Your task to perform on an android device: toggle data saver in the chrome app Image 0: 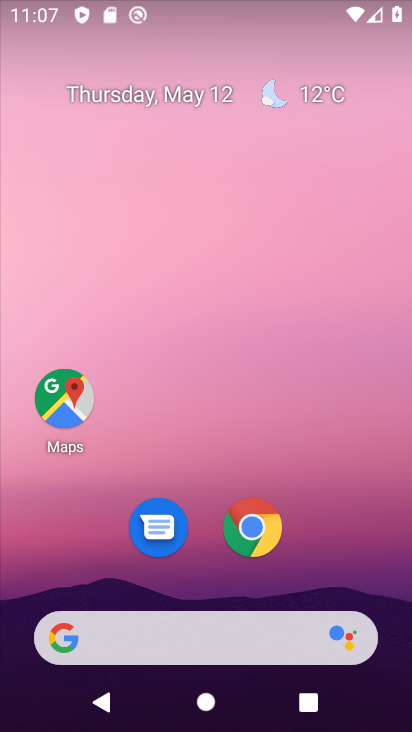
Step 0: press home button
Your task to perform on an android device: toggle data saver in the chrome app Image 1: 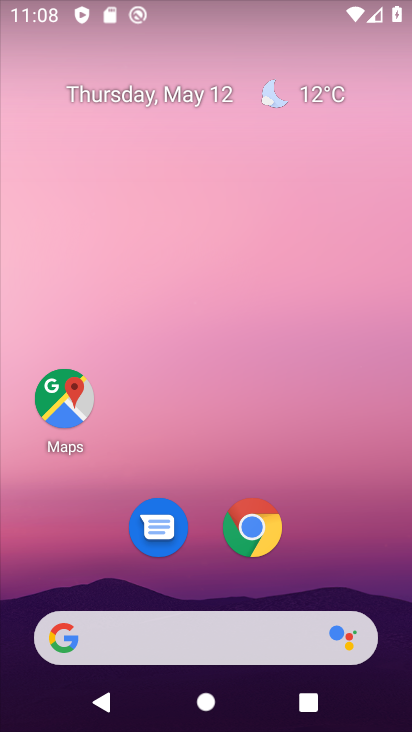
Step 1: click (256, 530)
Your task to perform on an android device: toggle data saver in the chrome app Image 2: 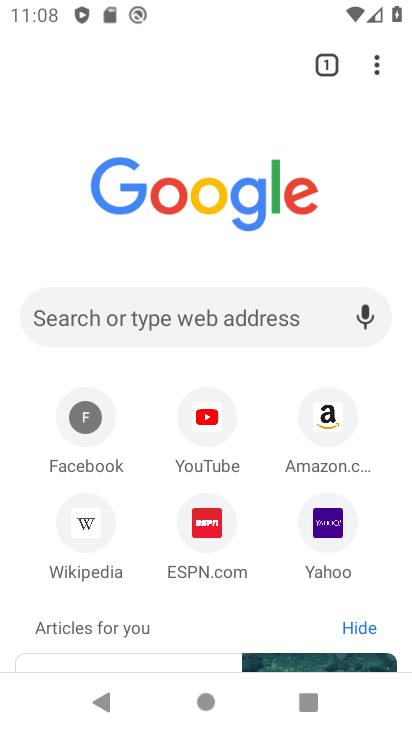
Step 2: click (389, 66)
Your task to perform on an android device: toggle data saver in the chrome app Image 3: 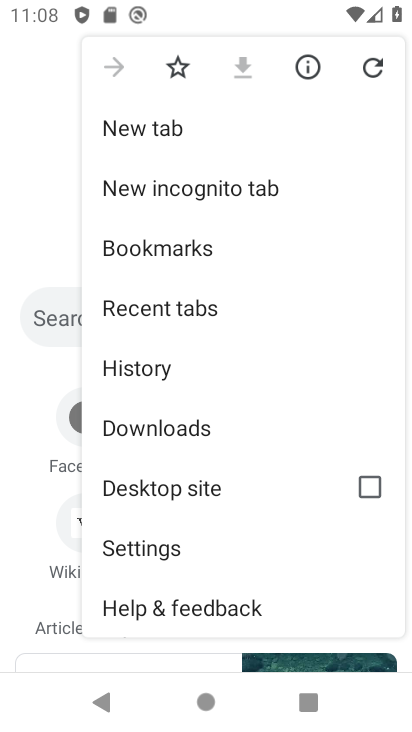
Step 3: click (113, 547)
Your task to perform on an android device: toggle data saver in the chrome app Image 4: 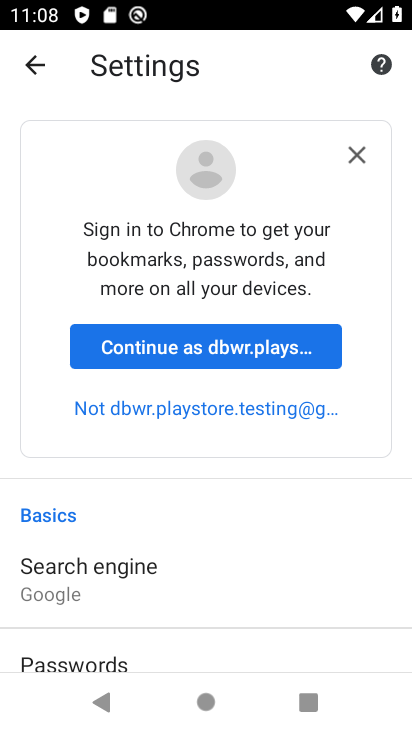
Step 4: drag from (129, 645) to (334, 172)
Your task to perform on an android device: toggle data saver in the chrome app Image 5: 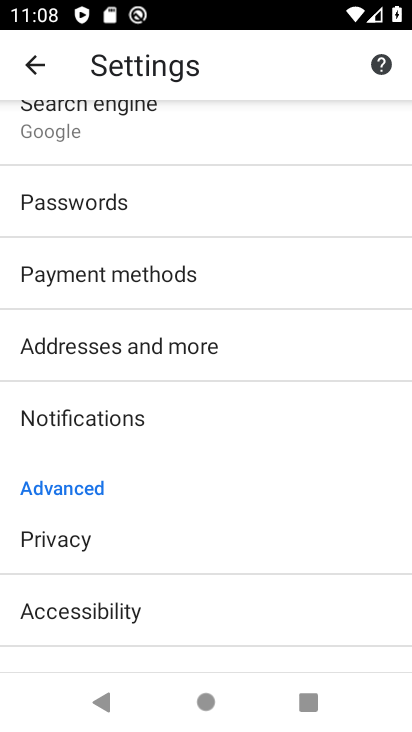
Step 5: drag from (10, 606) to (303, 141)
Your task to perform on an android device: toggle data saver in the chrome app Image 6: 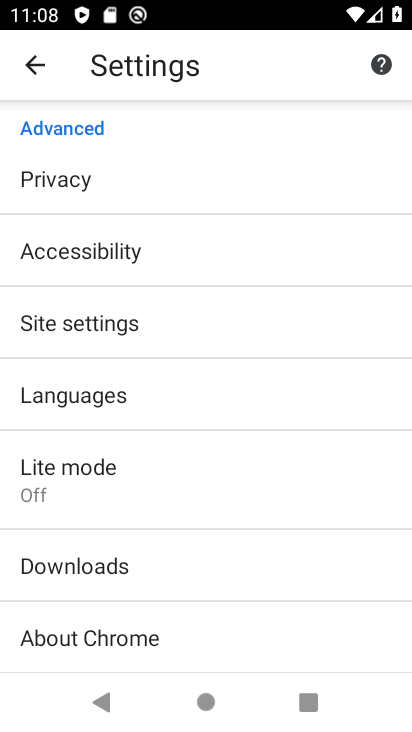
Step 6: click (83, 468)
Your task to perform on an android device: toggle data saver in the chrome app Image 7: 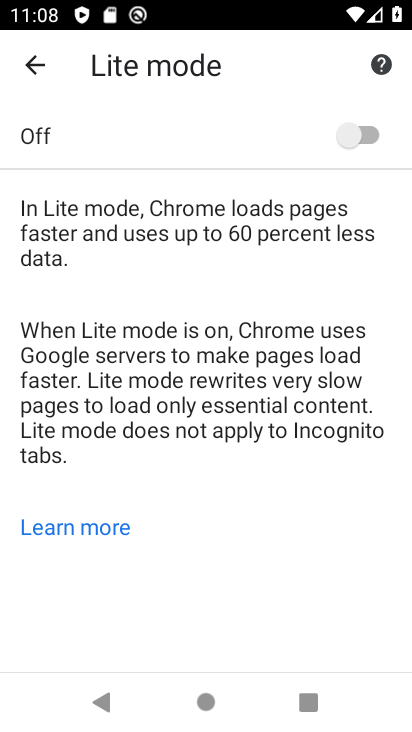
Step 7: click (347, 136)
Your task to perform on an android device: toggle data saver in the chrome app Image 8: 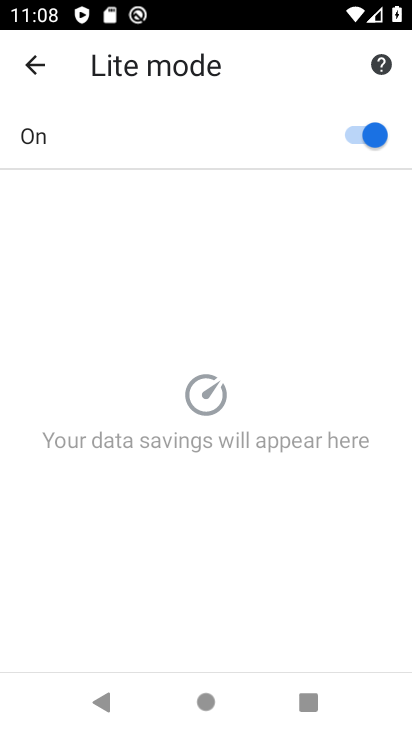
Step 8: task complete